Your task to perform on an android device: refresh tabs in the chrome app Image 0: 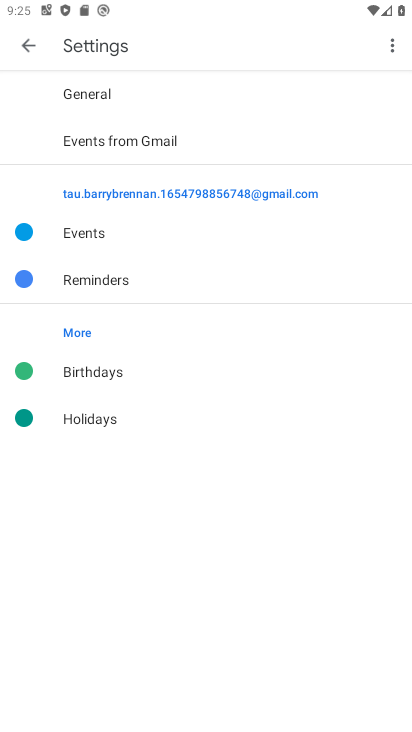
Step 0: press home button
Your task to perform on an android device: refresh tabs in the chrome app Image 1: 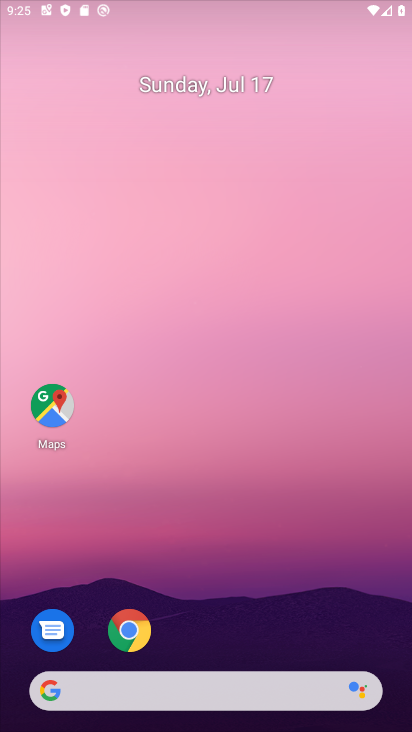
Step 1: drag from (247, 630) to (106, 12)
Your task to perform on an android device: refresh tabs in the chrome app Image 2: 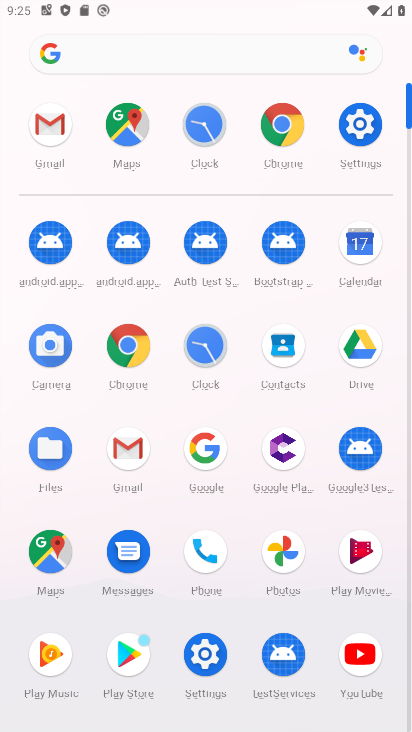
Step 2: click (125, 353)
Your task to perform on an android device: refresh tabs in the chrome app Image 3: 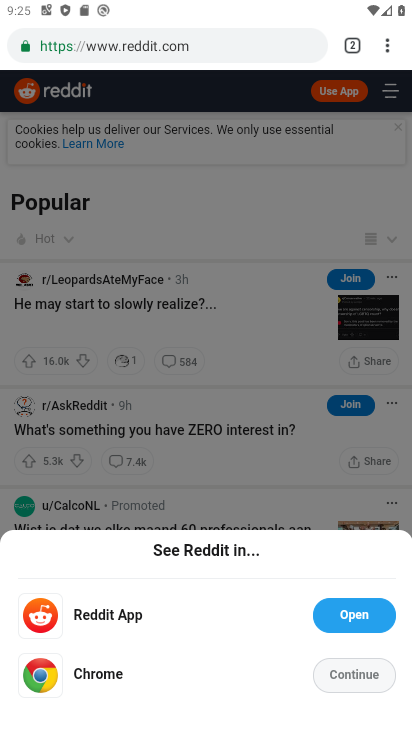
Step 3: click (387, 47)
Your task to perform on an android device: refresh tabs in the chrome app Image 4: 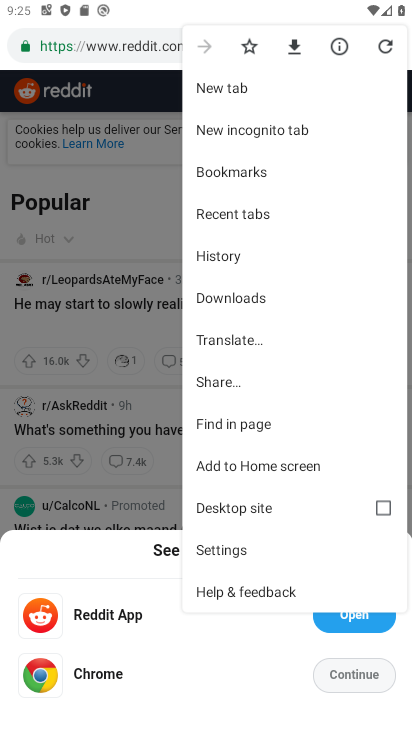
Step 4: click (379, 48)
Your task to perform on an android device: refresh tabs in the chrome app Image 5: 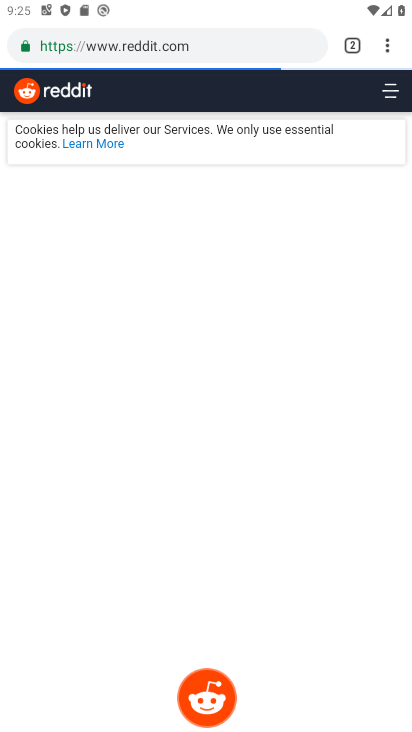
Step 5: task complete